Your task to perform on an android device: toggle location history Image 0: 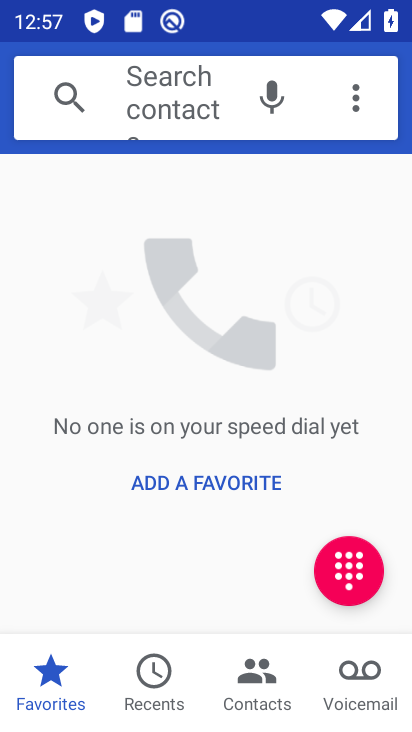
Step 0: press home button
Your task to perform on an android device: toggle location history Image 1: 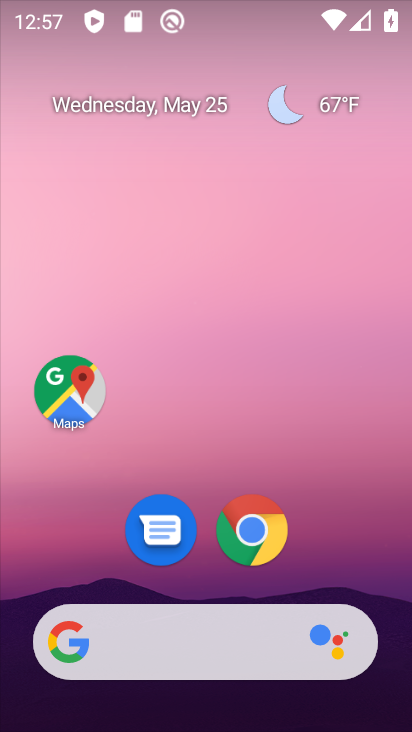
Step 1: drag from (329, 563) to (266, 119)
Your task to perform on an android device: toggle location history Image 2: 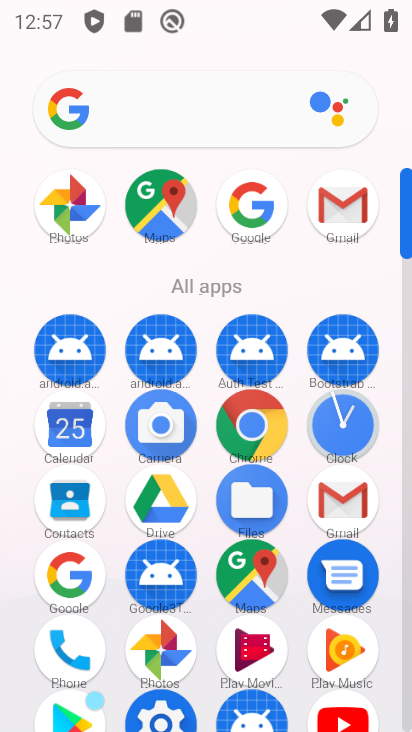
Step 2: drag from (206, 470) to (208, 284)
Your task to perform on an android device: toggle location history Image 3: 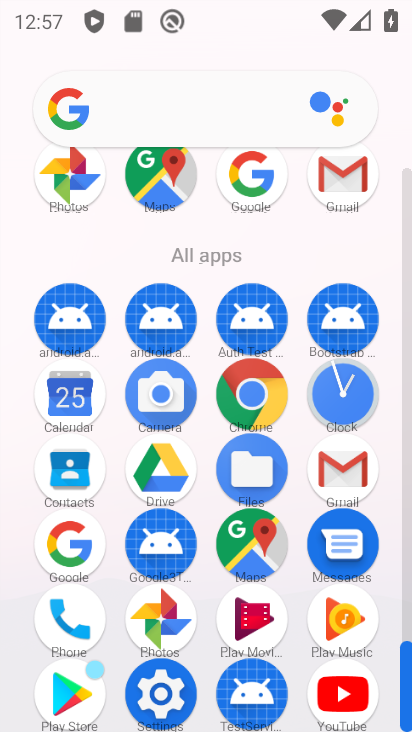
Step 3: click (160, 693)
Your task to perform on an android device: toggle location history Image 4: 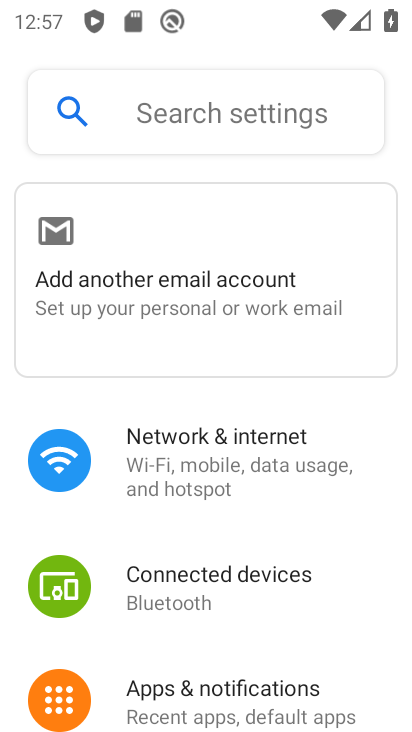
Step 4: drag from (149, 650) to (223, 539)
Your task to perform on an android device: toggle location history Image 5: 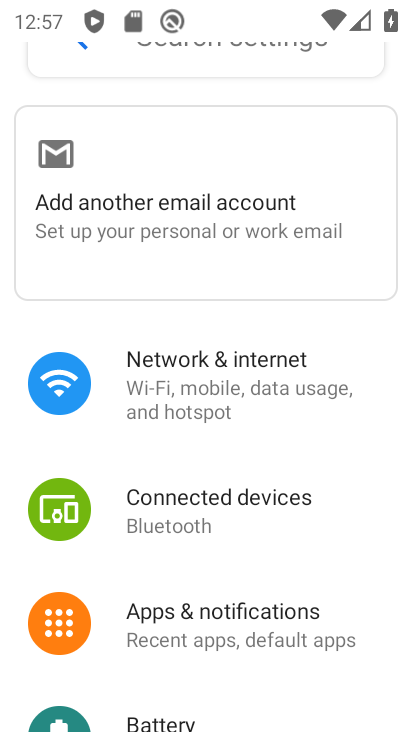
Step 5: drag from (160, 660) to (206, 552)
Your task to perform on an android device: toggle location history Image 6: 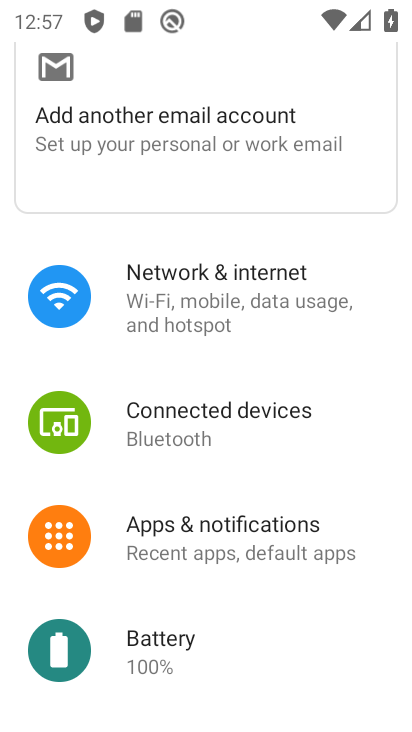
Step 6: drag from (155, 598) to (193, 498)
Your task to perform on an android device: toggle location history Image 7: 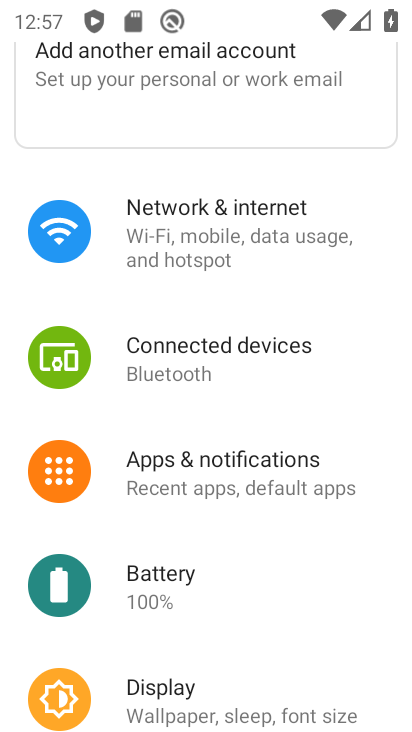
Step 7: drag from (141, 651) to (220, 503)
Your task to perform on an android device: toggle location history Image 8: 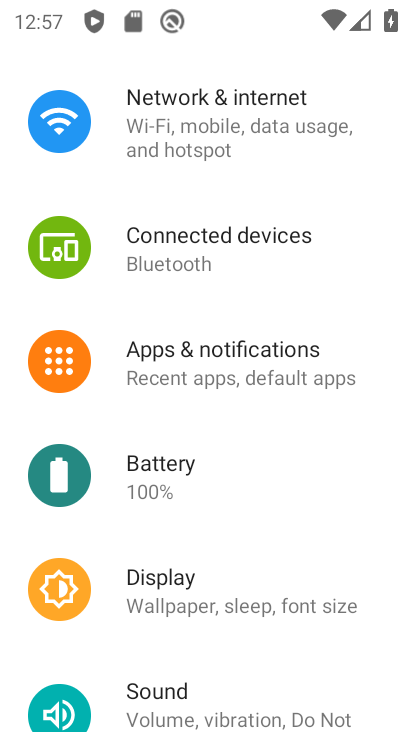
Step 8: drag from (128, 658) to (232, 527)
Your task to perform on an android device: toggle location history Image 9: 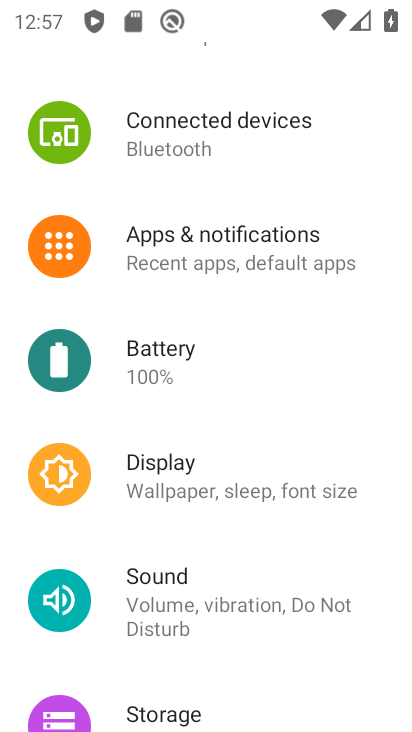
Step 9: drag from (104, 655) to (219, 511)
Your task to perform on an android device: toggle location history Image 10: 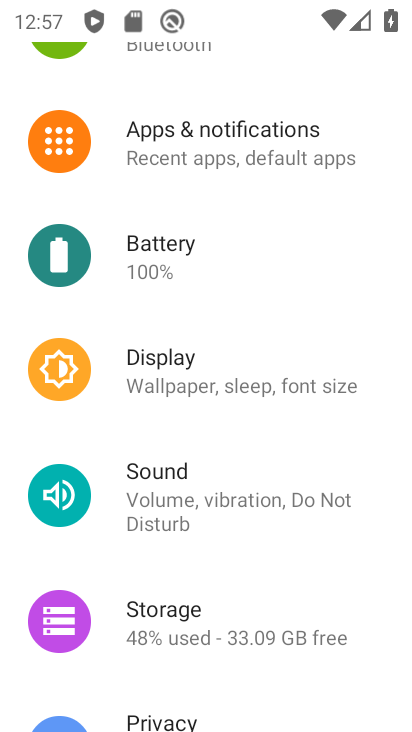
Step 10: drag from (94, 568) to (190, 455)
Your task to perform on an android device: toggle location history Image 11: 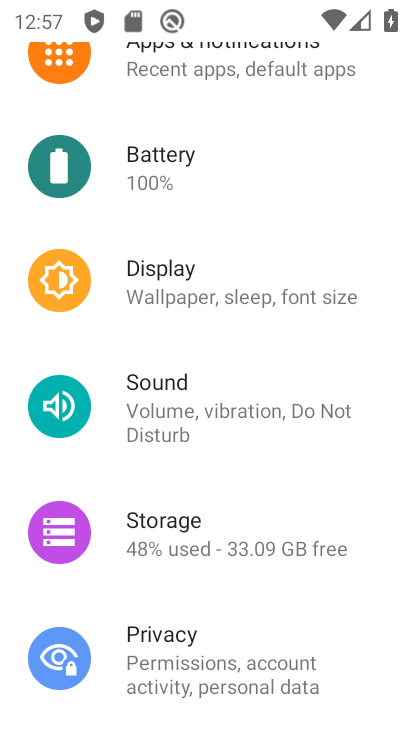
Step 11: drag from (98, 598) to (186, 486)
Your task to perform on an android device: toggle location history Image 12: 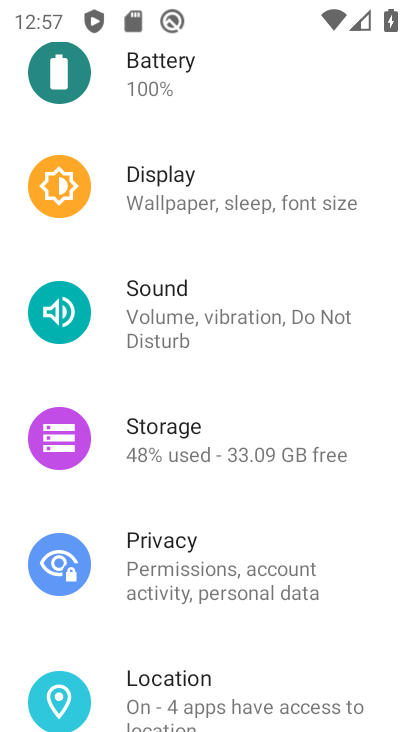
Step 12: drag from (69, 641) to (163, 483)
Your task to perform on an android device: toggle location history Image 13: 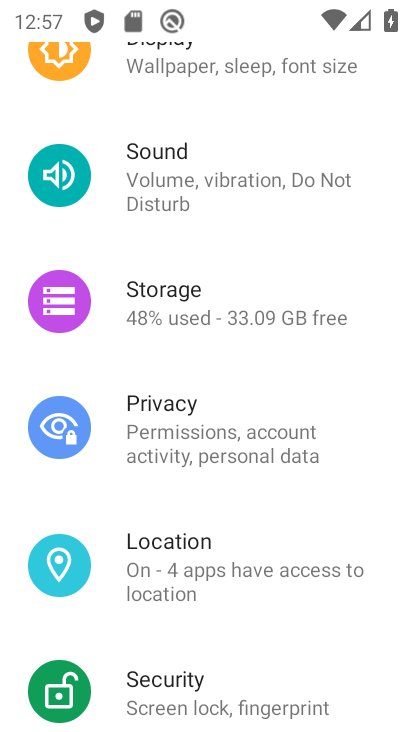
Step 13: click (206, 538)
Your task to perform on an android device: toggle location history Image 14: 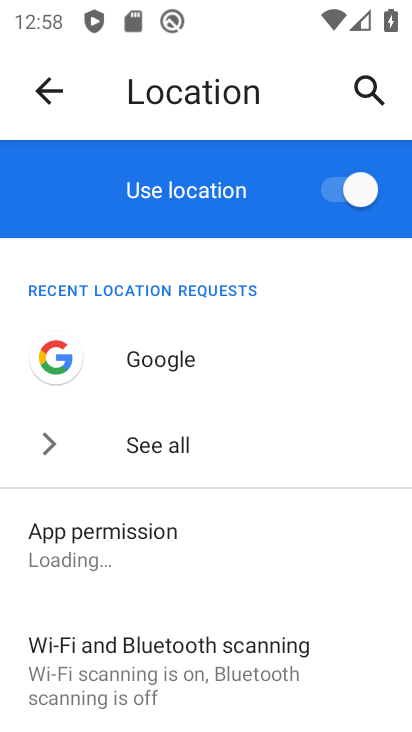
Step 14: drag from (135, 601) to (225, 455)
Your task to perform on an android device: toggle location history Image 15: 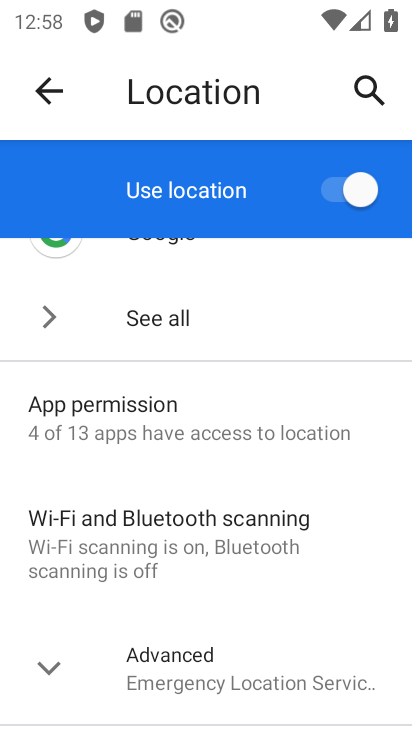
Step 15: click (187, 657)
Your task to perform on an android device: toggle location history Image 16: 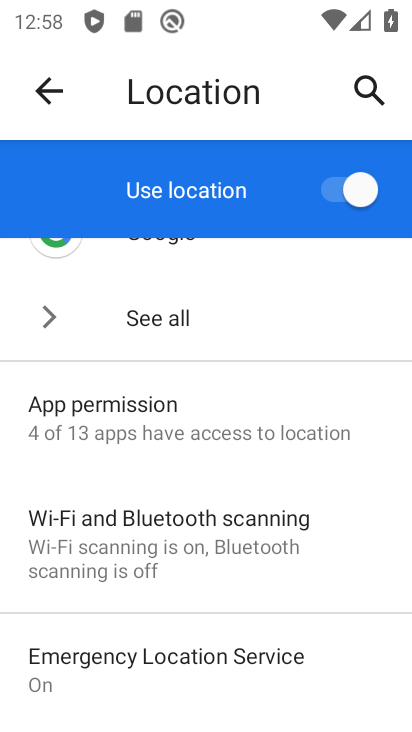
Step 16: drag from (172, 685) to (243, 553)
Your task to perform on an android device: toggle location history Image 17: 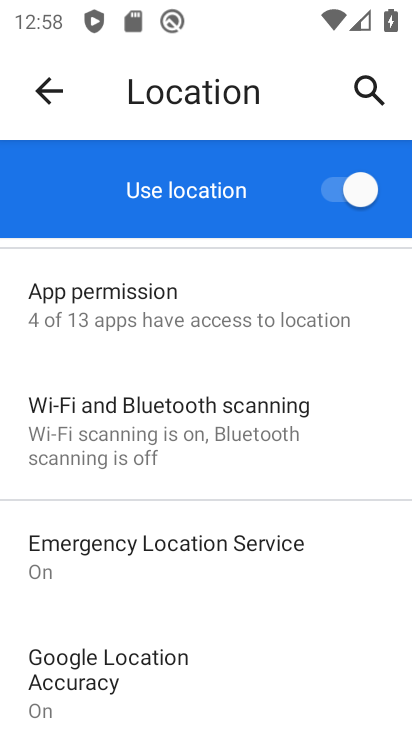
Step 17: drag from (174, 691) to (276, 540)
Your task to perform on an android device: toggle location history Image 18: 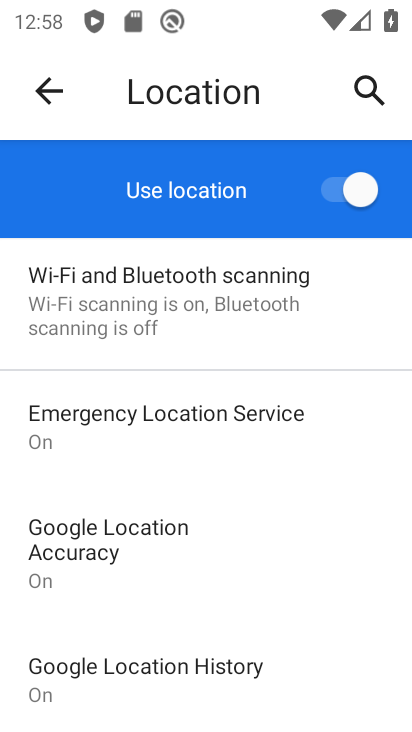
Step 18: click (204, 665)
Your task to perform on an android device: toggle location history Image 19: 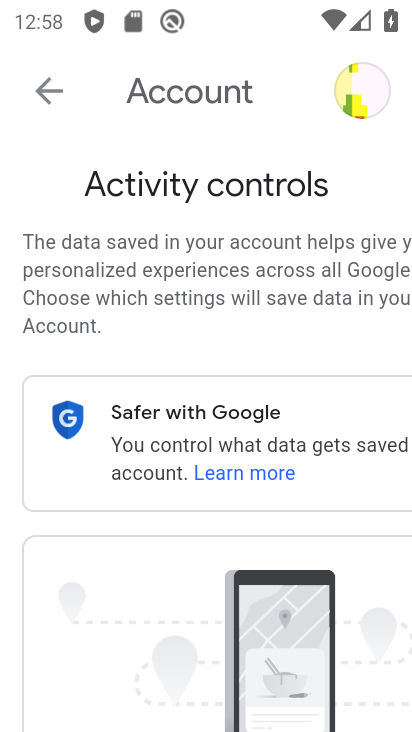
Step 19: drag from (162, 648) to (210, 447)
Your task to perform on an android device: toggle location history Image 20: 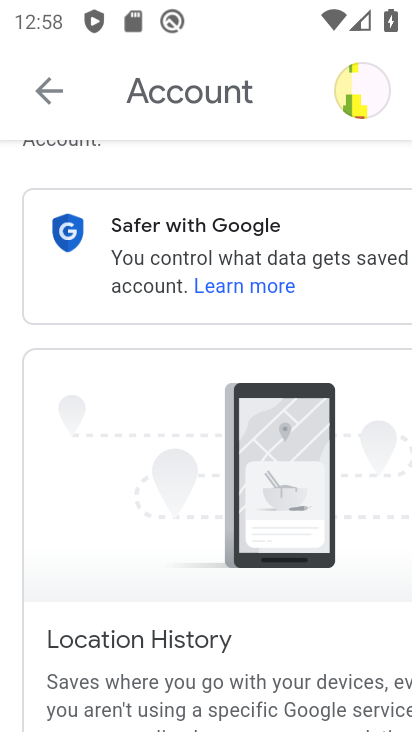
Step 20: drag from (126, 561) to (162, 425)
Your task to perform on an android device: toggle location history Image 21: 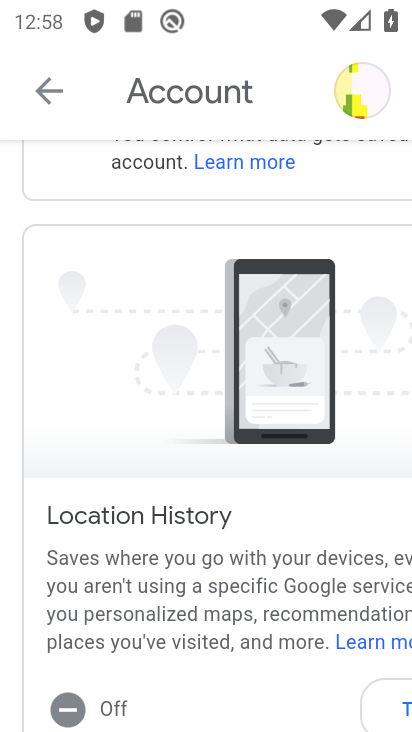
Step 21: drag from (145, 589) to (178, 402)
Your task to perform on an android device: toggle location history Image 22: 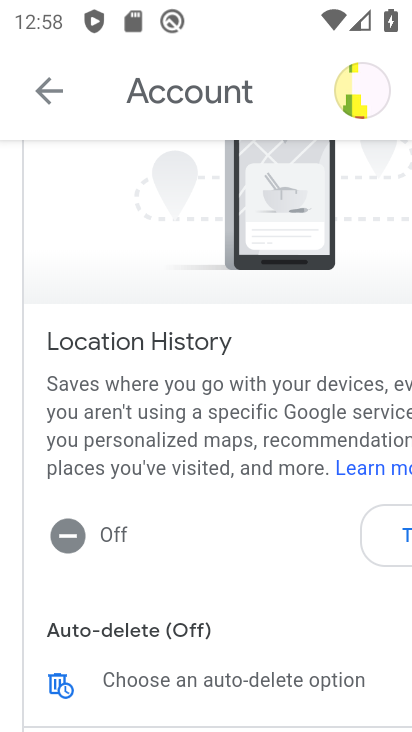
Step 22: drag from (312, 563) to (188, 562)
Your task to perform on an android device: toggle location history Image 23: 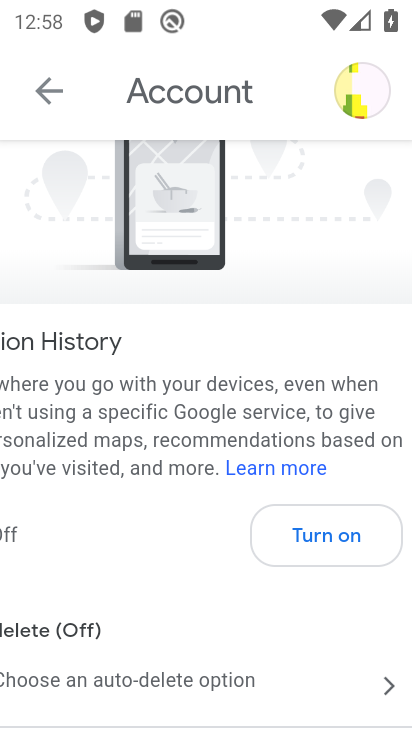
Step 23: click (311, 537)
Your task to perform on an android device: toggle location history Image 24: 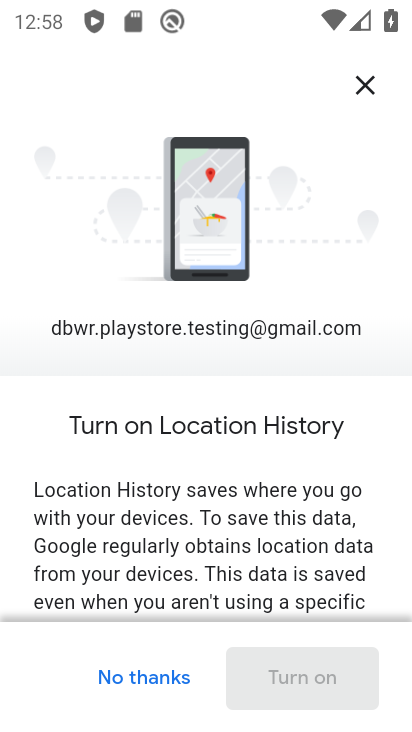
Step 24: drag from (221, 592) to (251, 491)
Your task to perform on an android device: toggle location history Image 25: 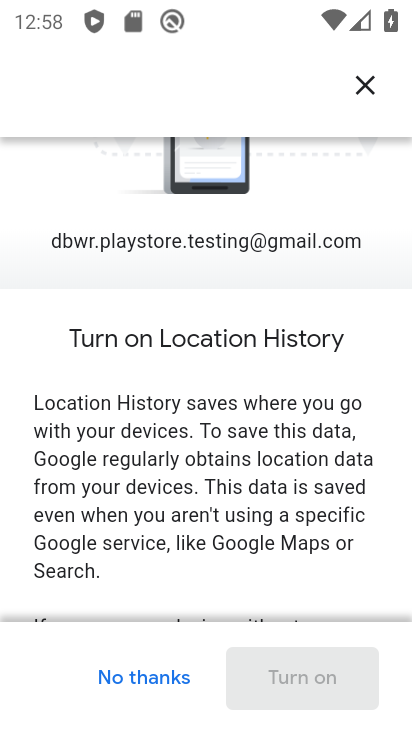
Step 25: drag from (203, 551) to (230, 448)
Your task to perform on an android device: toggle location history Image 26: 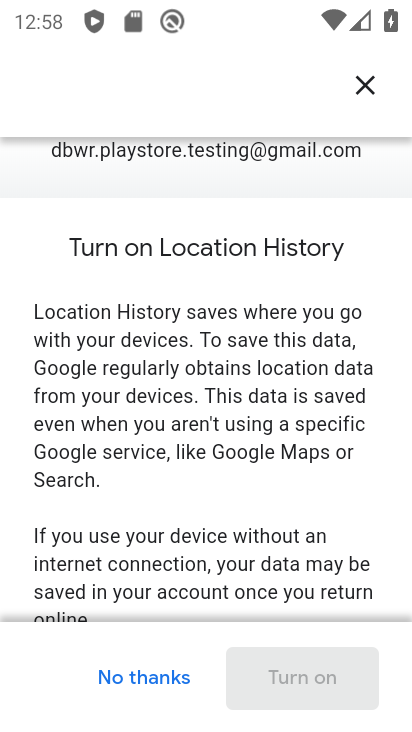
Step 26: drag from (183, 566) to (210, 475)
Your task to perform on an android device: toggle location history Image 27: 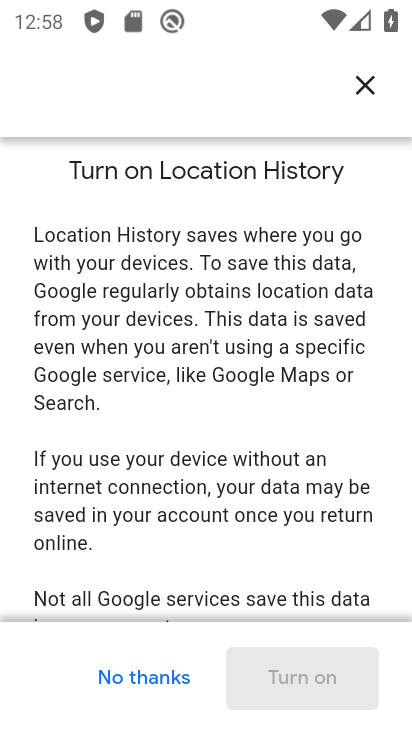
Step 27: drag from (178, 570) to (206, 463)
Your task to perform on an android device: toggle location history Image 28: 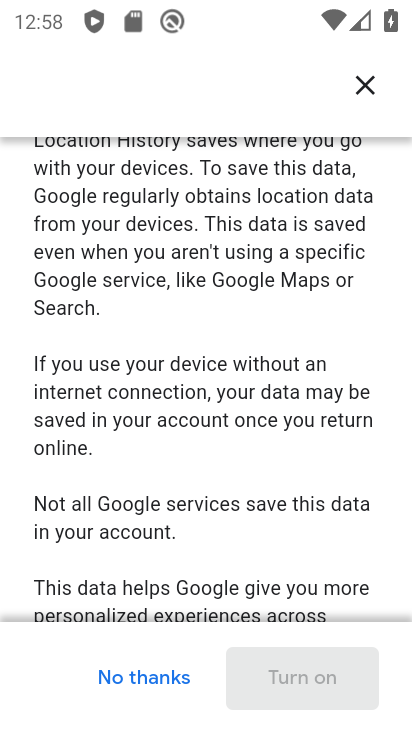
Step 28: drag from (186, 559) to (238, 459)
Your task to perform on an android device: toggle location history Image 29: 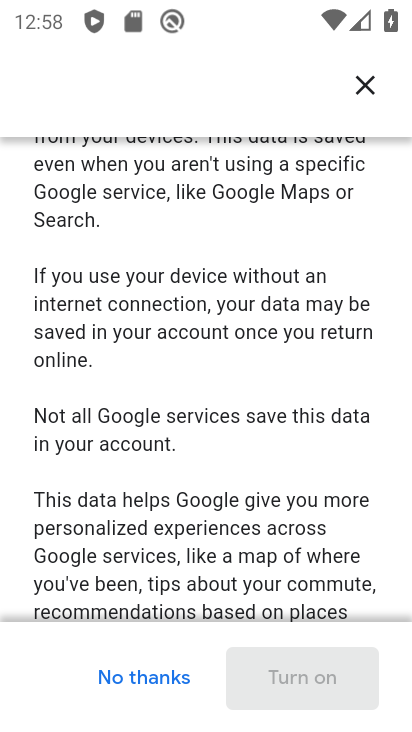
Step 29: drag from (196, 580) to (255, 474)
Your task to perform on an android device: toggle location history Image 30: 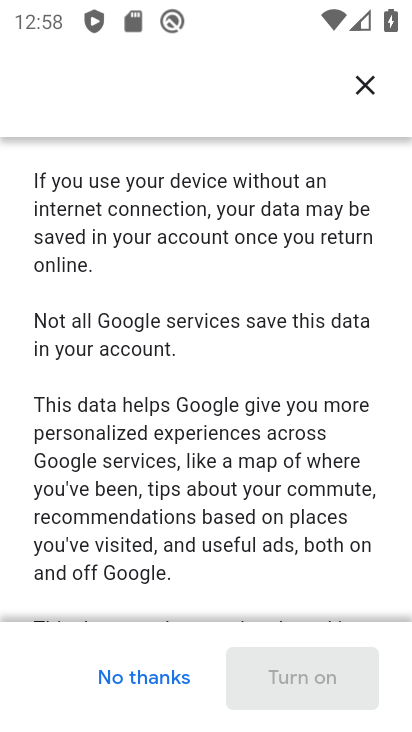
Step 30: drag from (190, 582) to (251, 466)
Your task to perform on an android device: toggle location history Image 31: 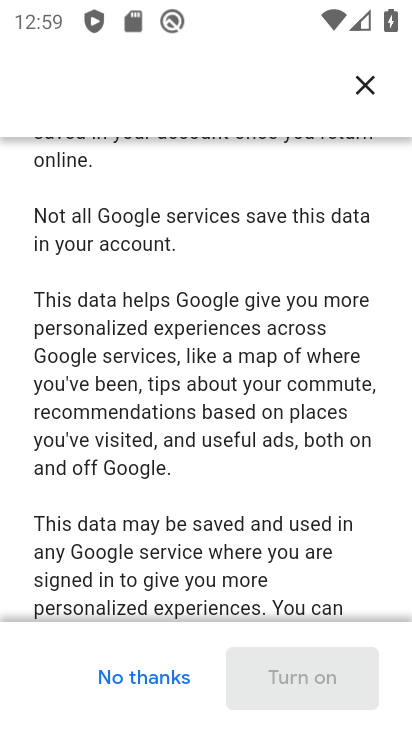
Step 31: drag from (157, 538) to (201, 444)
Your task to perform on an android device: toggle location history Image 32: 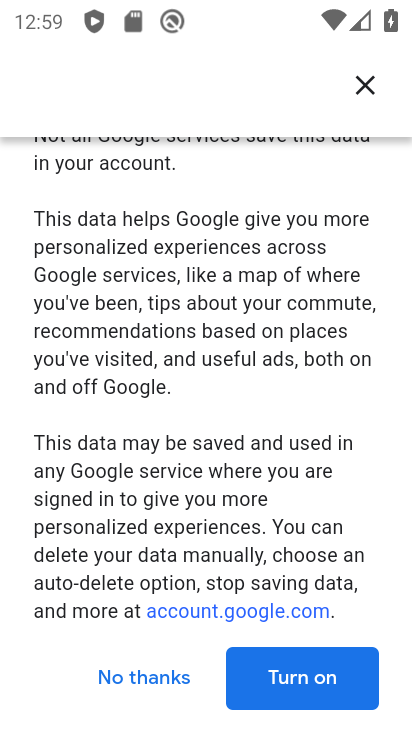
Step 32: click (290, 679)
Your task to perform on an android device: toggle location history Image 33: 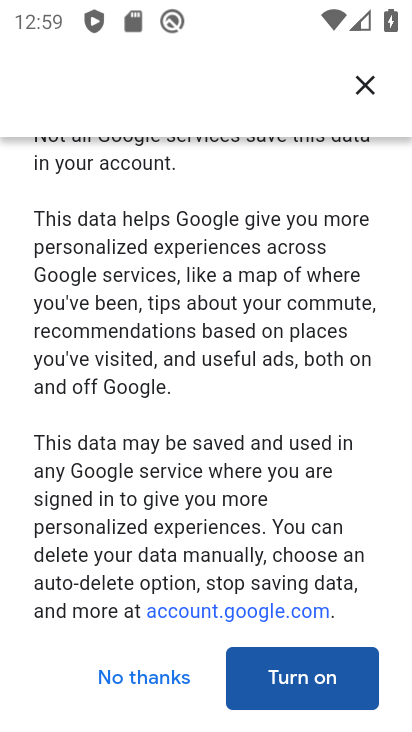
Step 33: click (288, 679)
Your task to perform on an android device: toggle location history Image 34: 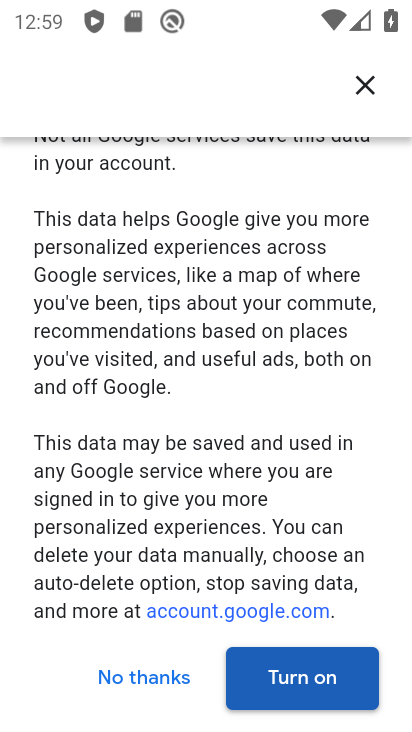
Step 34: click (315, 679)
Your task to perform on an android device: toggle location history Image 35: 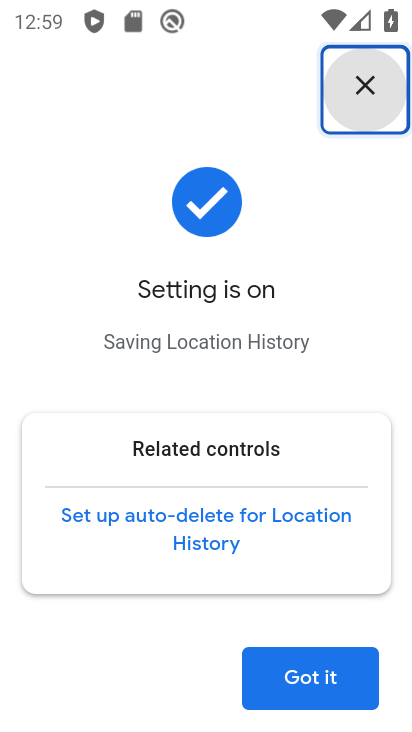
Step 35: click (312, 682)
Your task to perform on an android device: toggle location history Image 36: 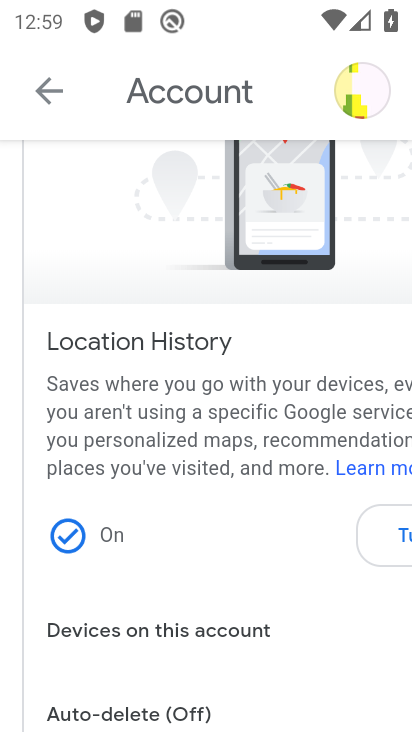
Step 36: task complete